Your task to perform on an android device: toggle airplane mode Image 0: 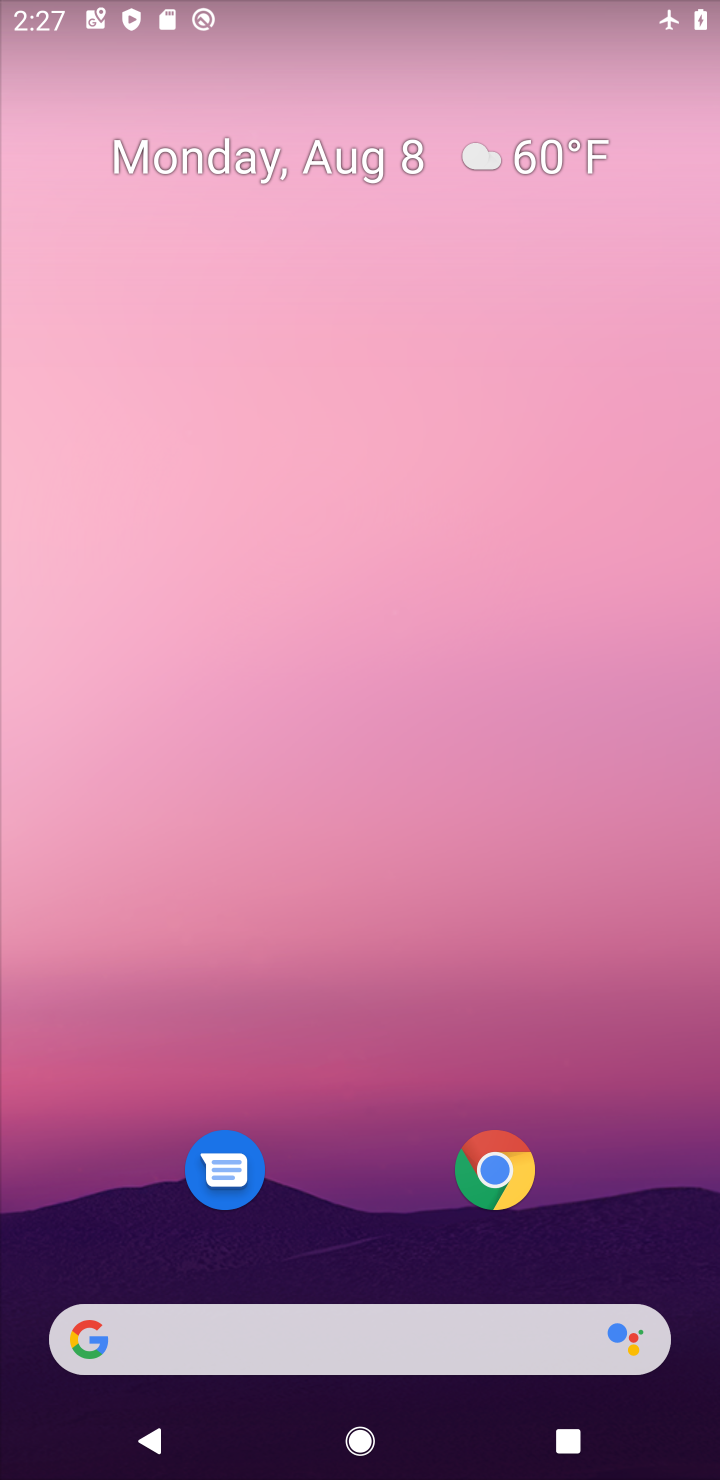
Step 0: drag from (376, 1053) to (370, 472)
Your task to perform on an android device: toggle airplane mode Image 1: 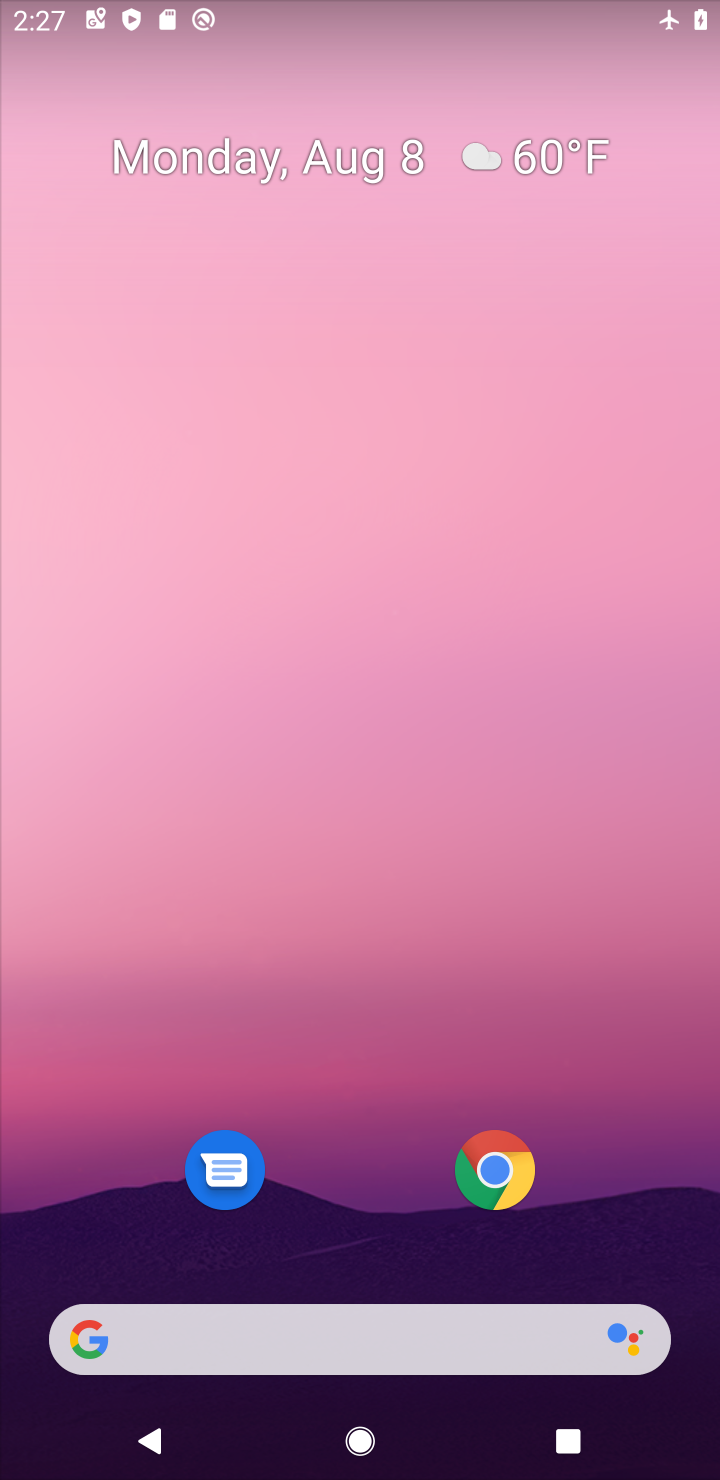
Step 1: drag from (371, 1133) to (374, 248)
Your task to perform on an android device: toggle airplane mode Image 2: 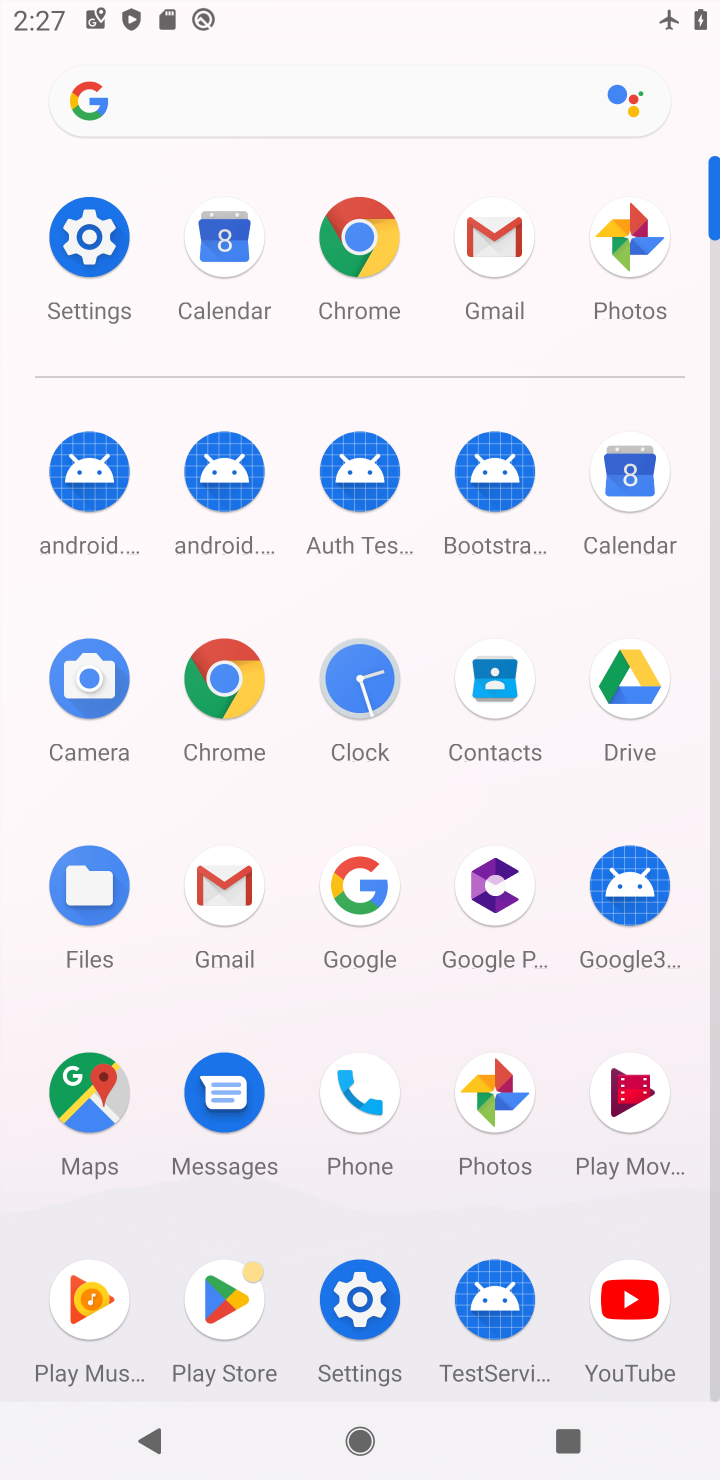
Step 2: click (131, 285)
Your task to perform on an android device: toggle airplane mode Image 3: 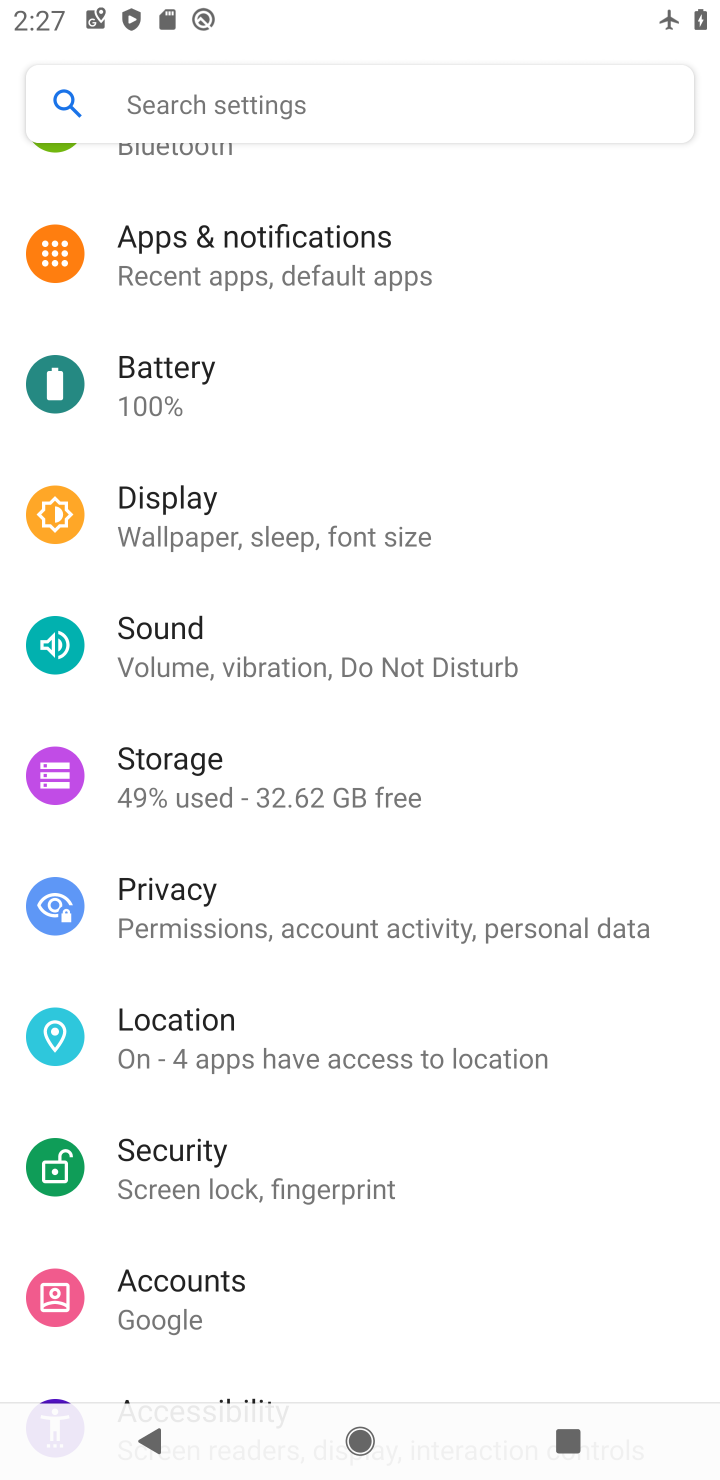
Step 3: drag from (337, 299) to (353, 917)
Your task to perform on an android device: toggle airplane mode Image 4: 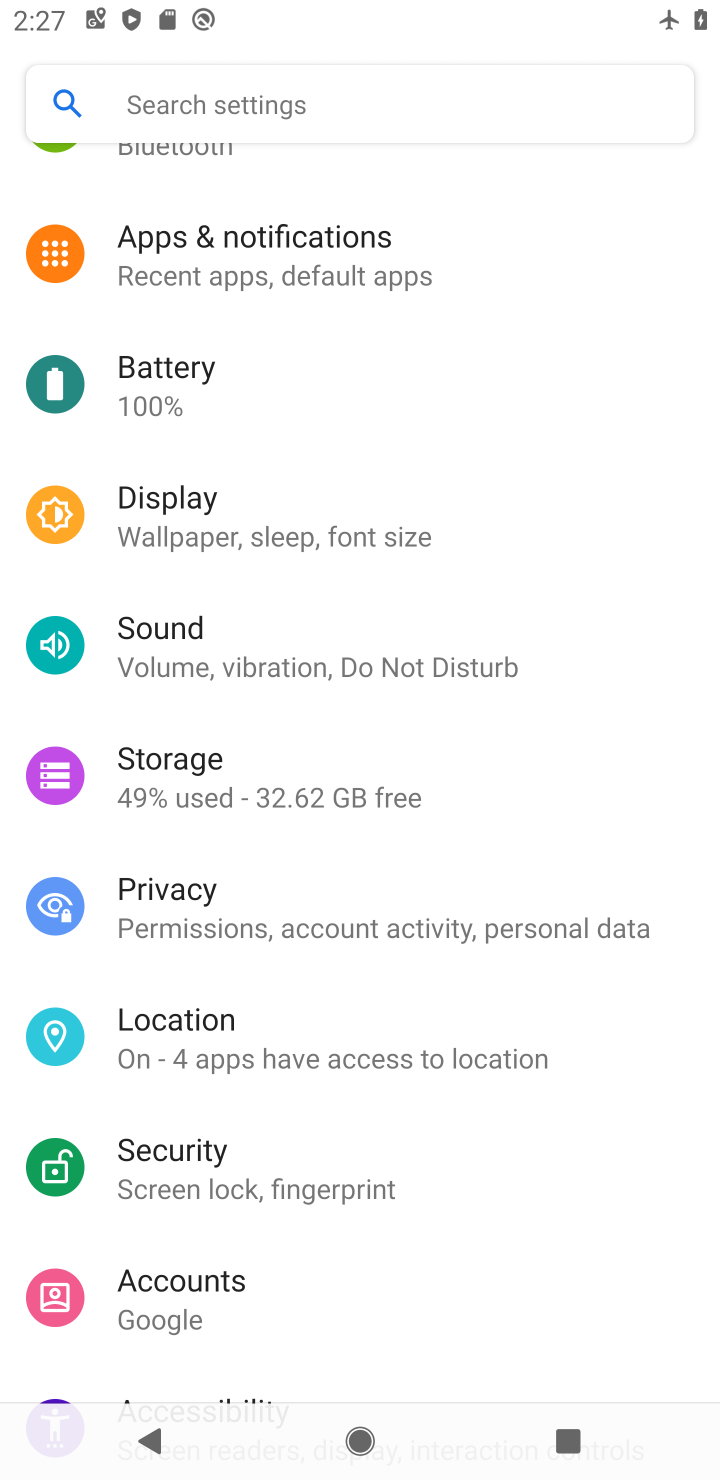
Step 4: drag from (323, 399) to (323, 1077)
Your task to perform on an android device: toggle airplane mode Image 5: 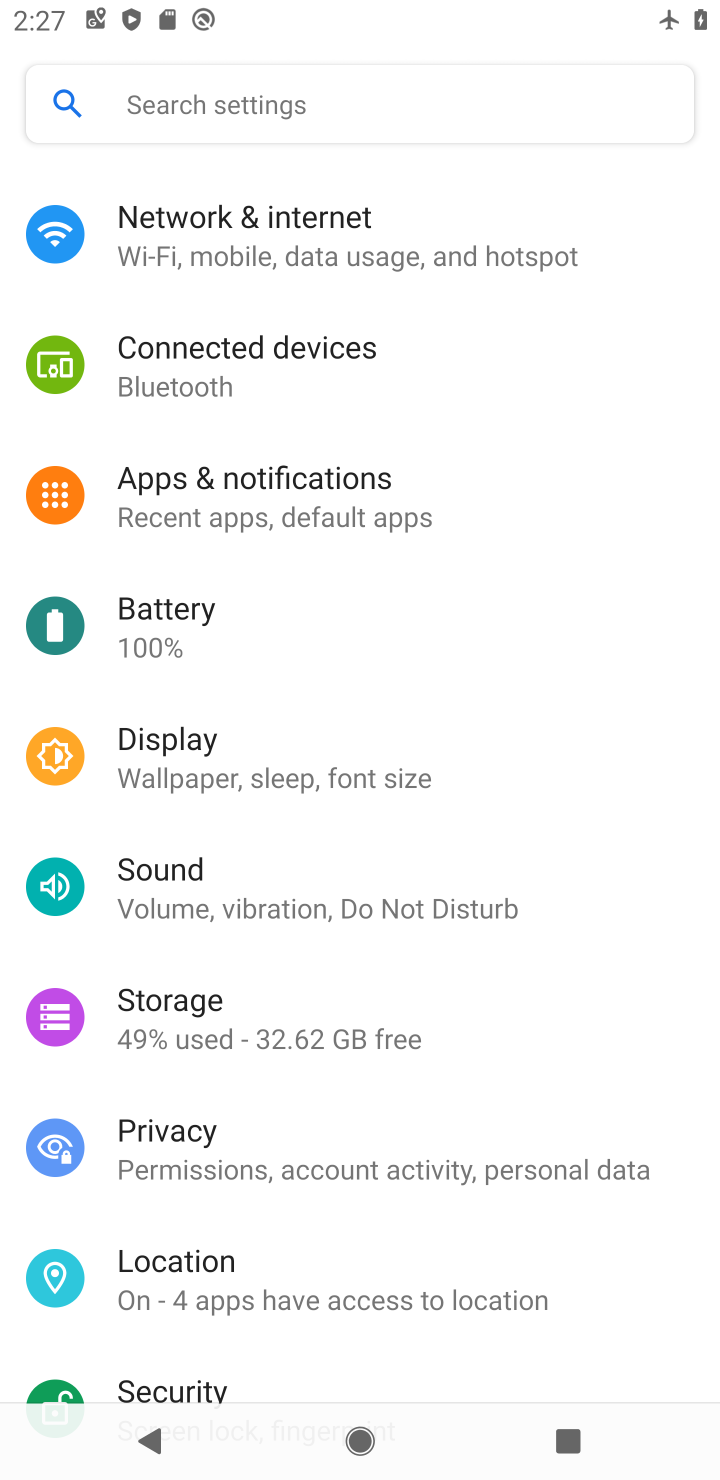
Step 5: drag from (283, 529) to (283, 1053)
Your task to perform on an android device: toggle airplane mode Image 6: 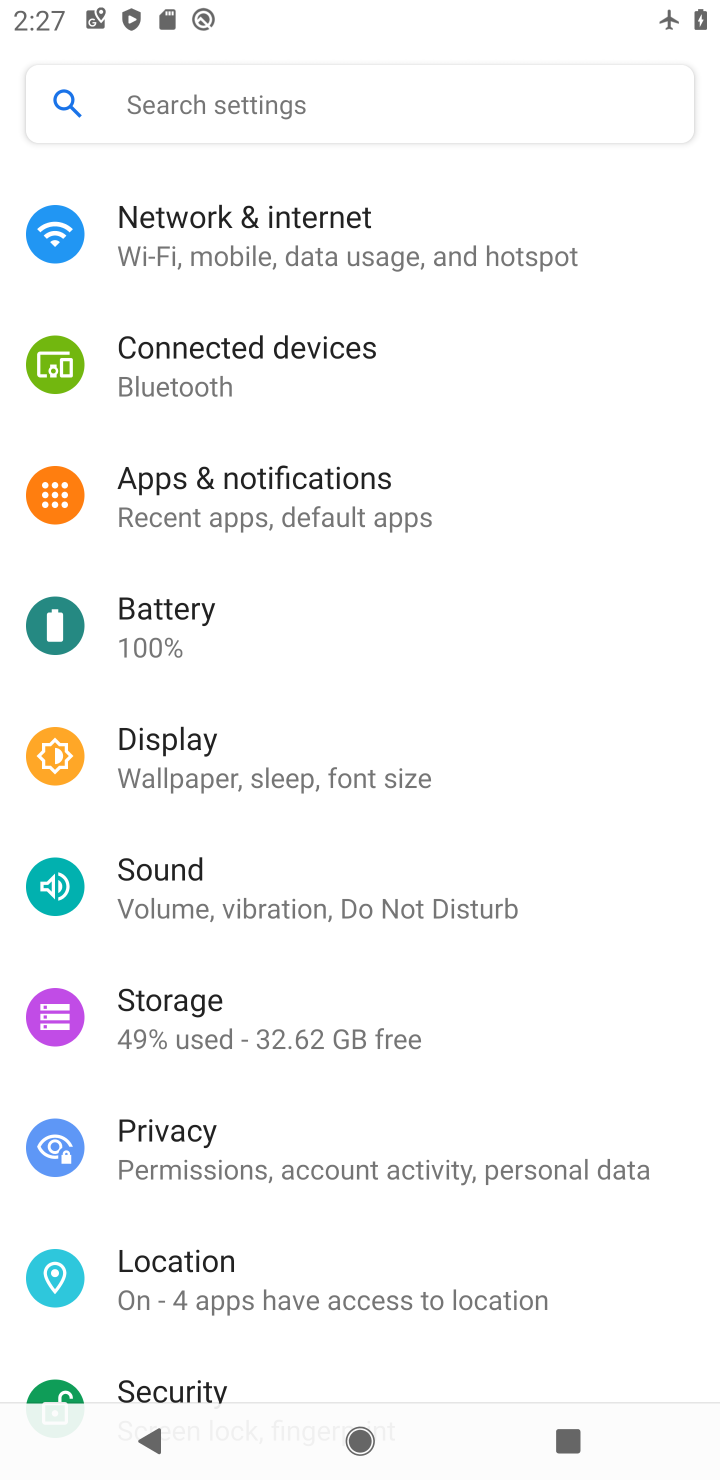
Step 6: click (291, 214)
Your task to perform on an android device: toggle airplane mode Image 7: 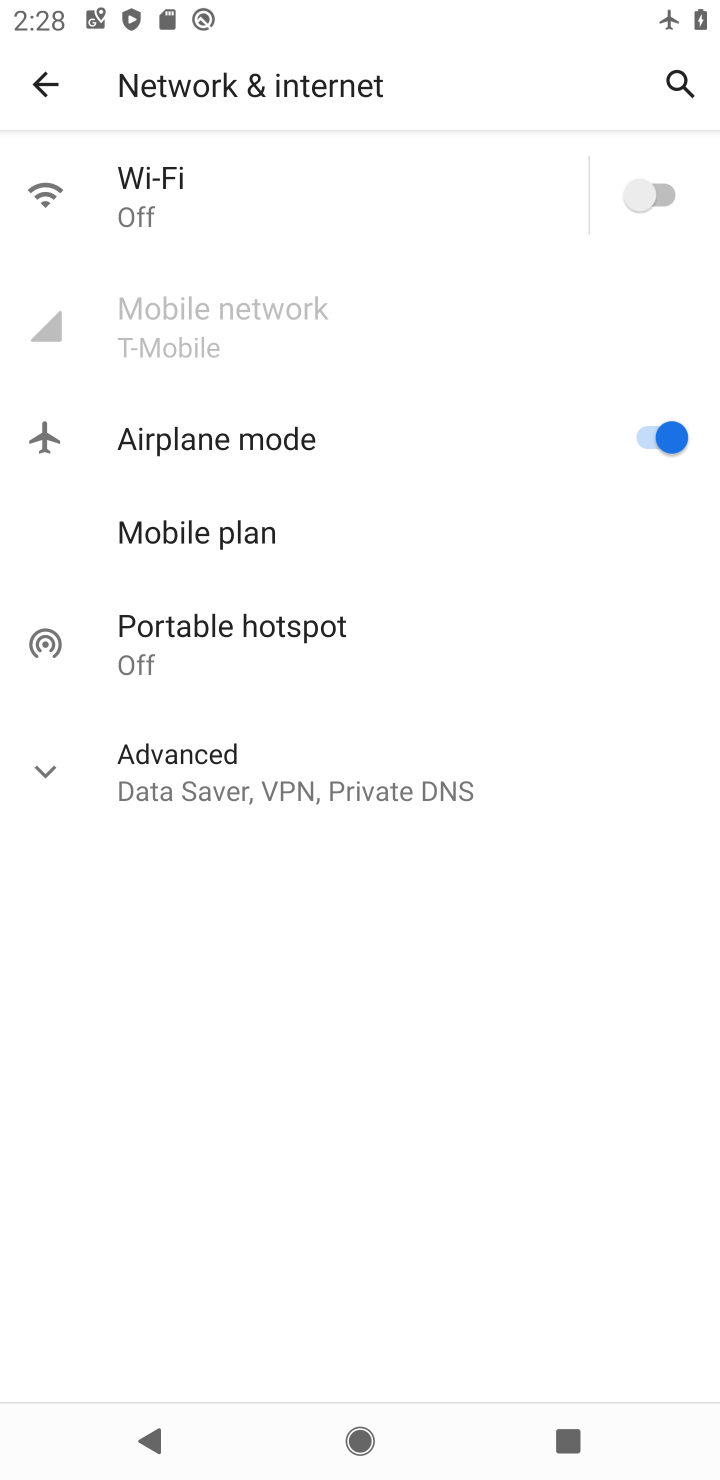
Step 7: click (655, 451)
Your task to perform on an android device: toggle airplane mode Image 8: 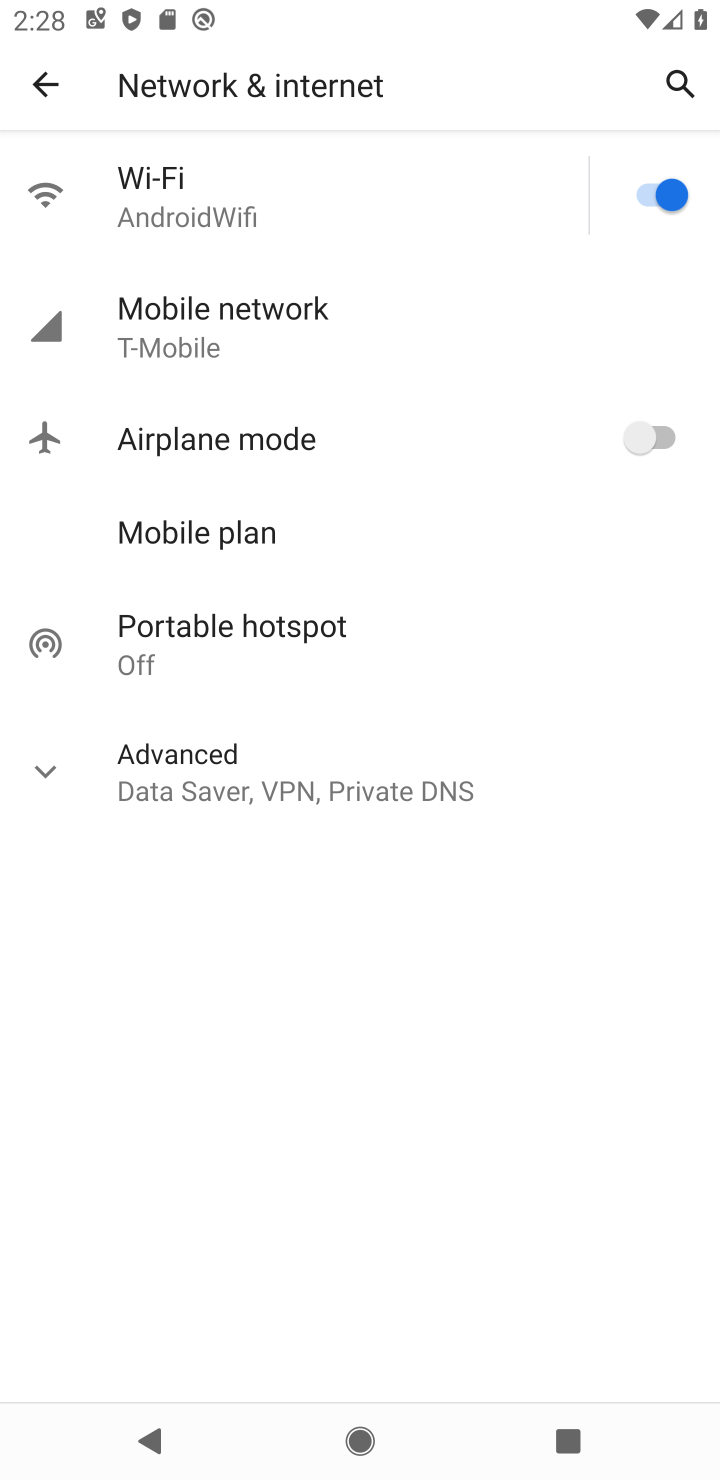
Step 8: task complete